Your task to perform on an android device: turn on priority inbox in the gmail app Image 0: 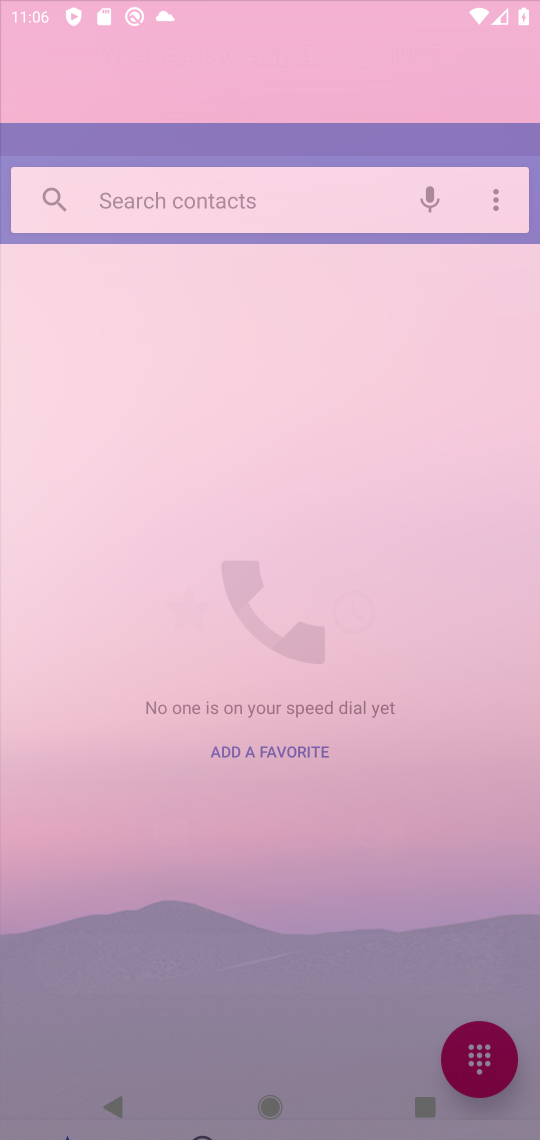
Step 0: press home button
Your task to perform on an android device: turn on priority inbox in the gmail app Image 1: 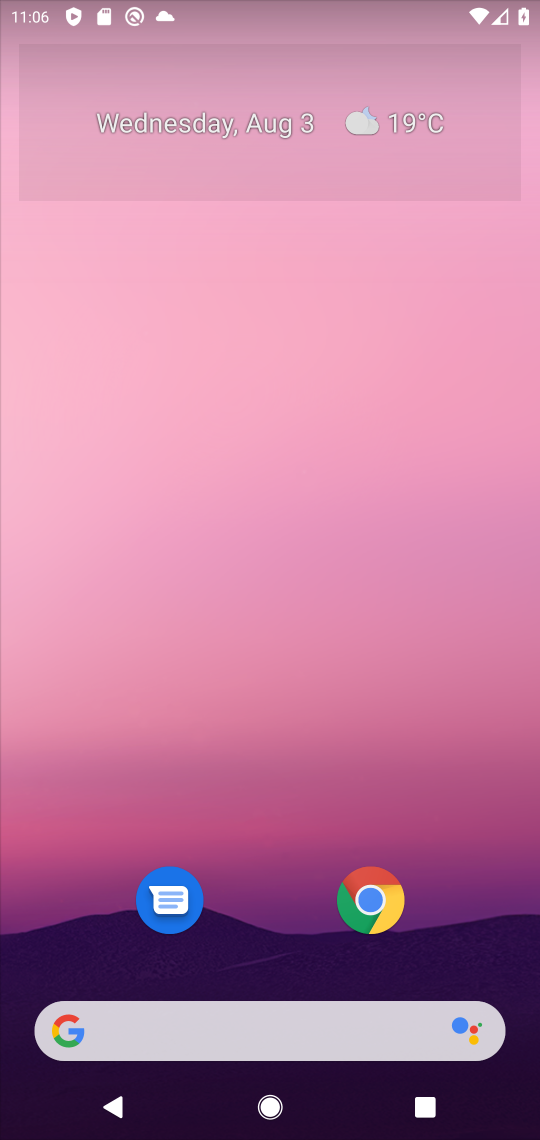
Step 1: drag from (306, 940) to (273, 199)
Your task to perform on an android device: turn on priority inbox in the gmail app Image 2: 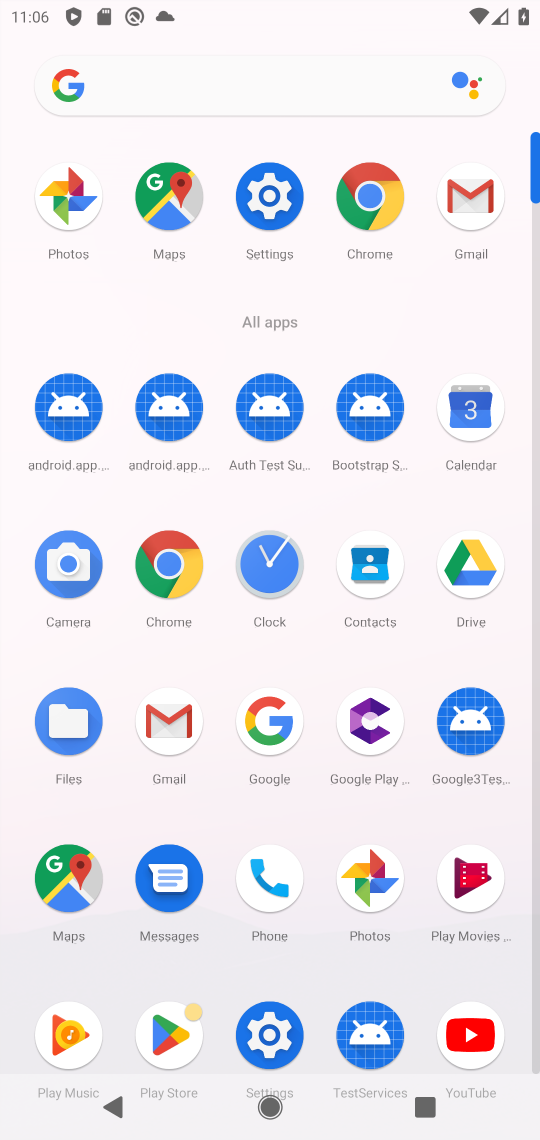
Step 2: click (481, 192)
Your task to perform on an android device: turn on priority inbox in the gmail app Image 3: 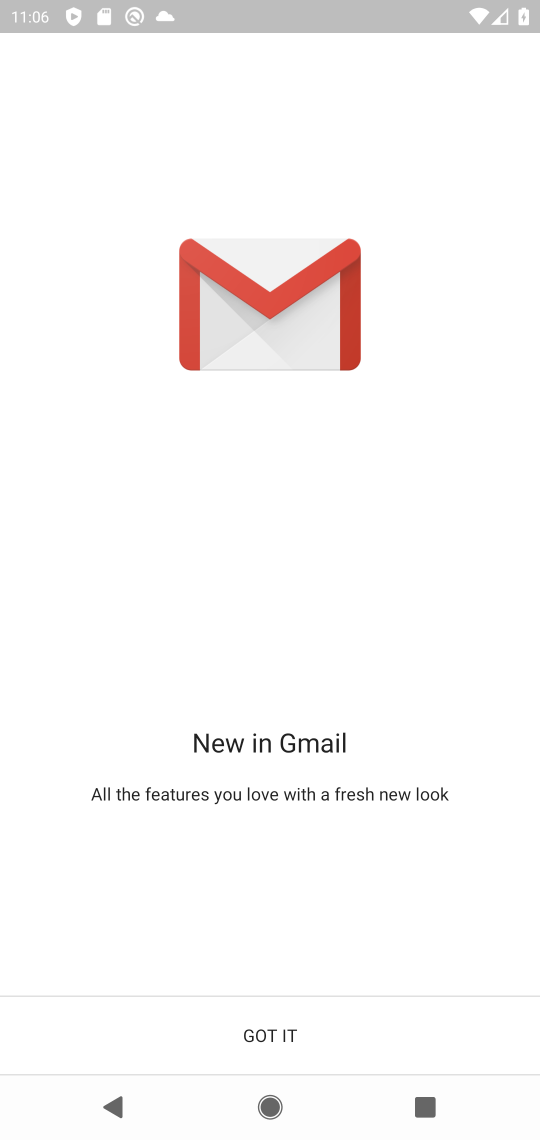
Step 3: click (268, 1030)
Your task to perform on an android device: turn on priority inbox in the gmail app Image 4: 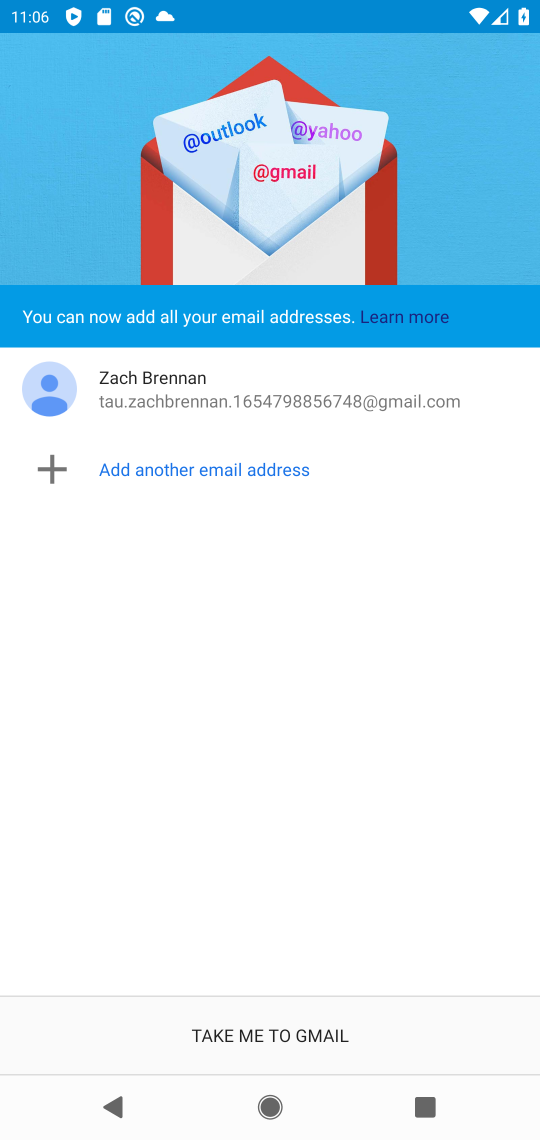
Step 4: click (268, 1030)
Your task to perform on an android device: turn on priority inbox in the gmail app Image 5: 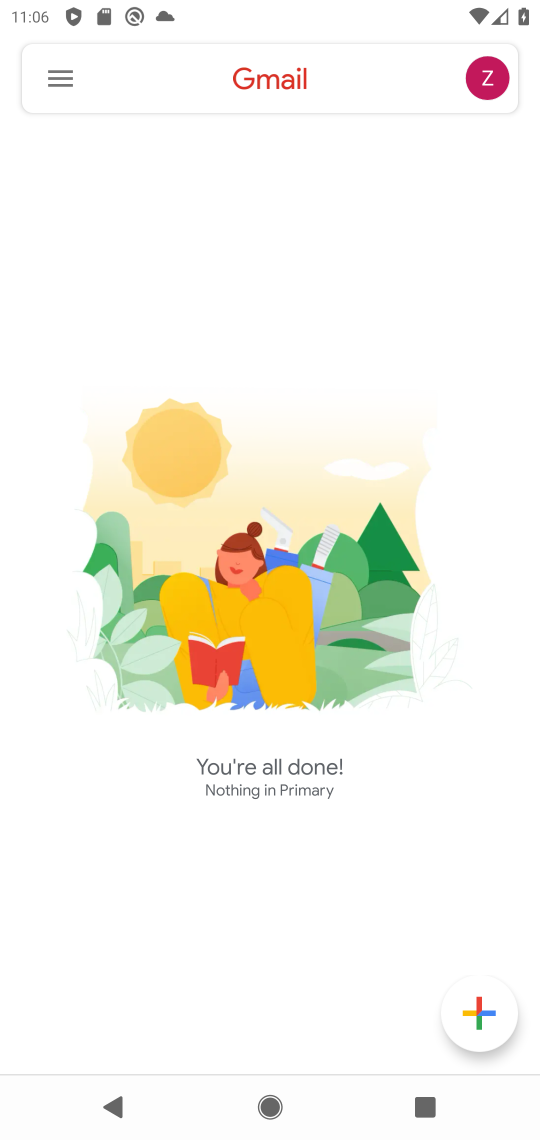
Step 5: click (50, 77)
Your task to perform on an android device: turn on priority inbox in the gmail app Image 6: 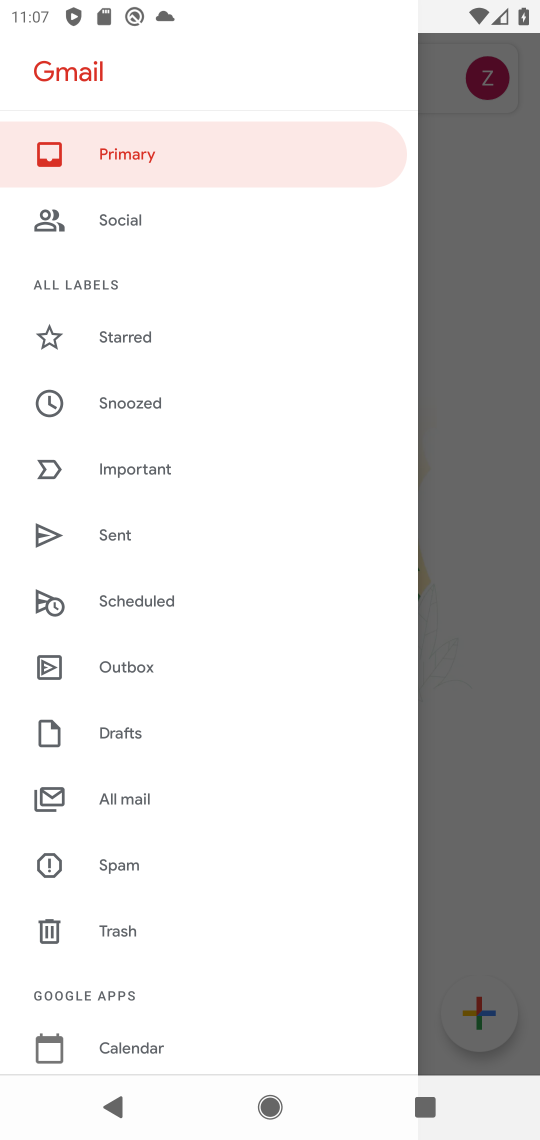
Step 6: drag from (149, 995) to (192, 548)
Your task to perform on an android device: turn on priority inbox in the gmail app Image 7: 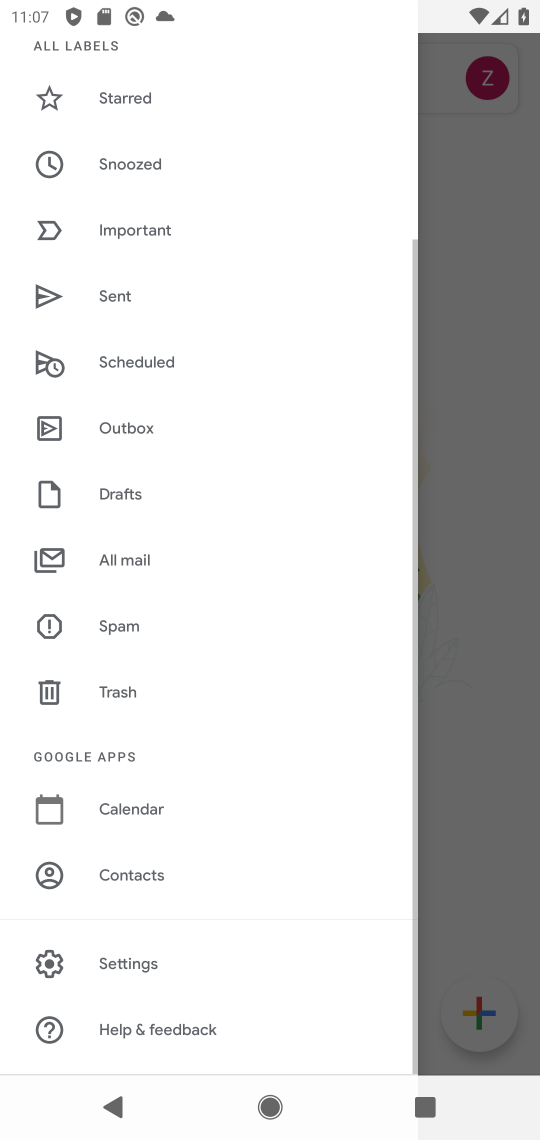
Step 7: click (136, 965)
Your task to perform on an android device: turn on priority inbox in the gmail app Image 8: 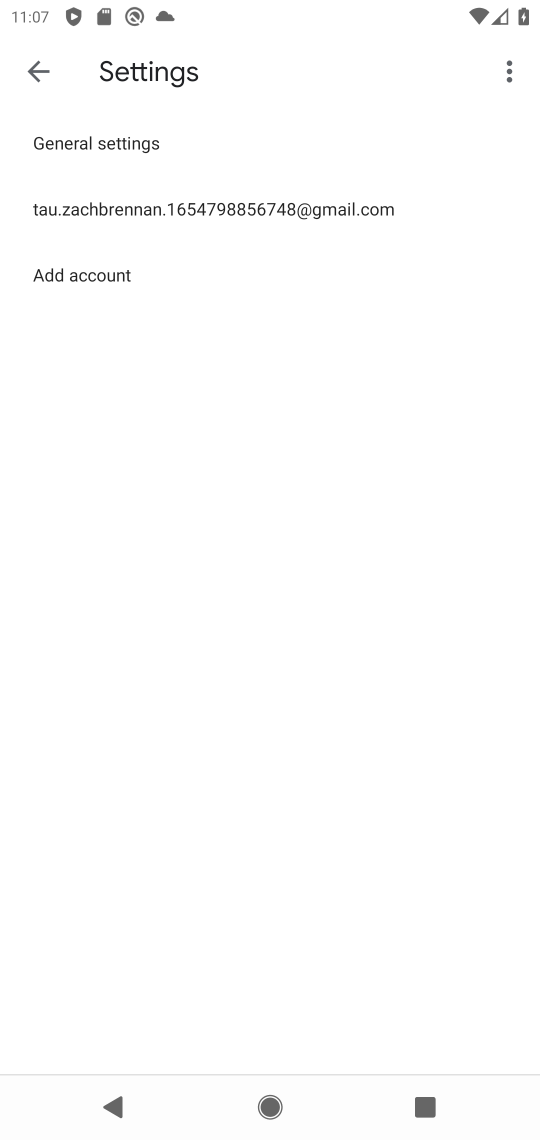
Step 8: click (70, 206)
Your task to perform on an android device: turn on priority inbox in the gmail app Image 9: 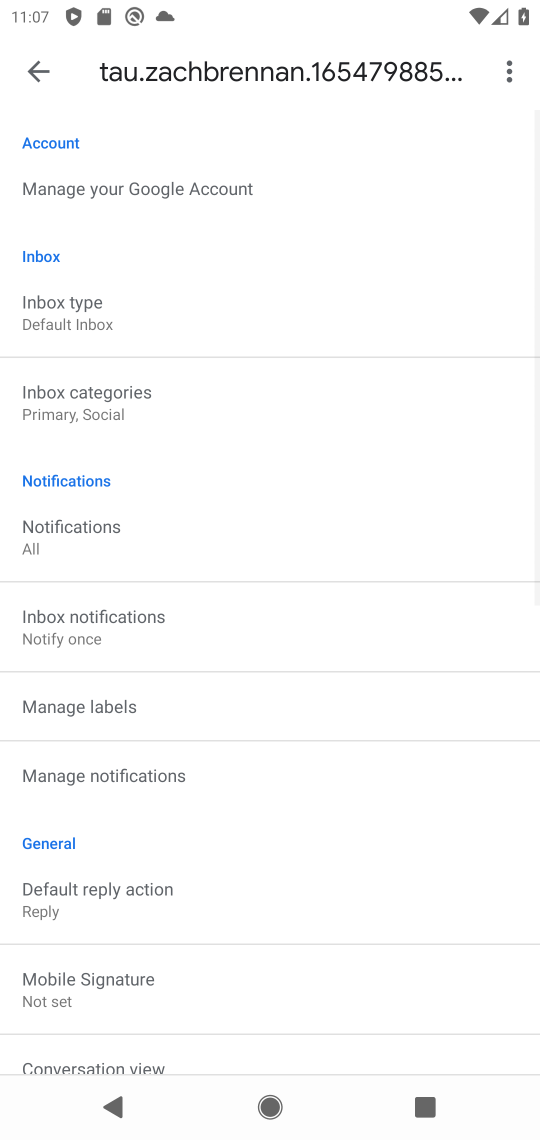
Step 9: click (49, 313)
Your task to perform on an android device: turn on priority inbox in the gmail app Image 10: 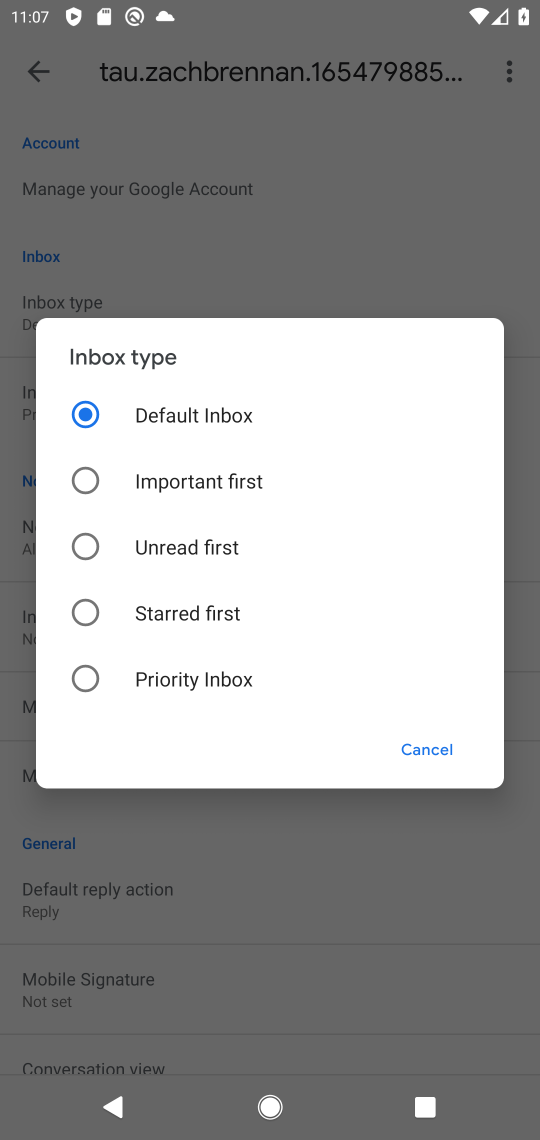
Step 10: click (89, 673)
Your task to perform on an android device: turn on priority inbox in the gmail app Image 11: 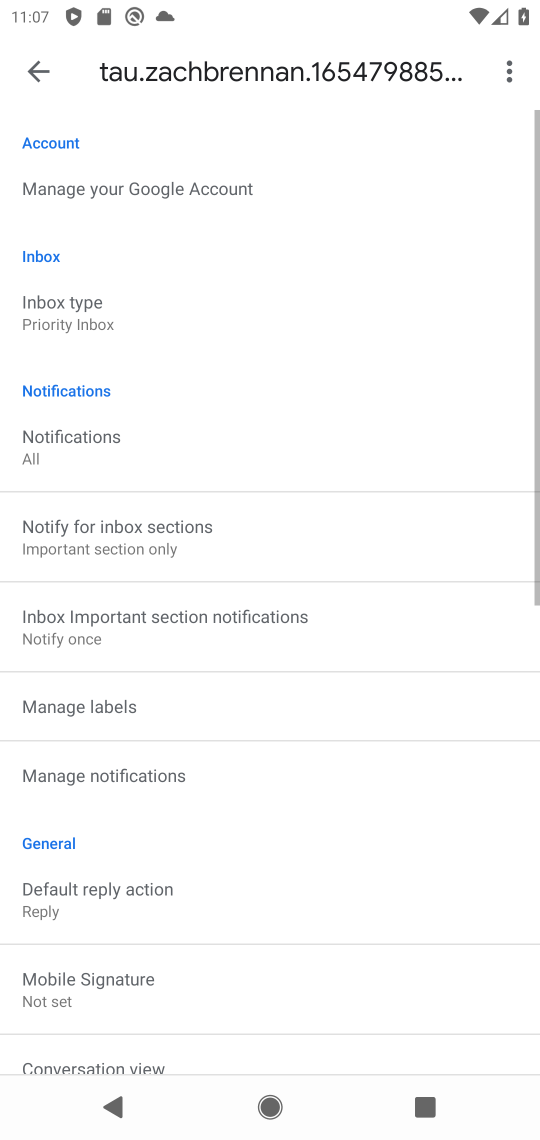
Step 11: task complete